Your task to perform on an android device: turn off airplane mode Image 0: 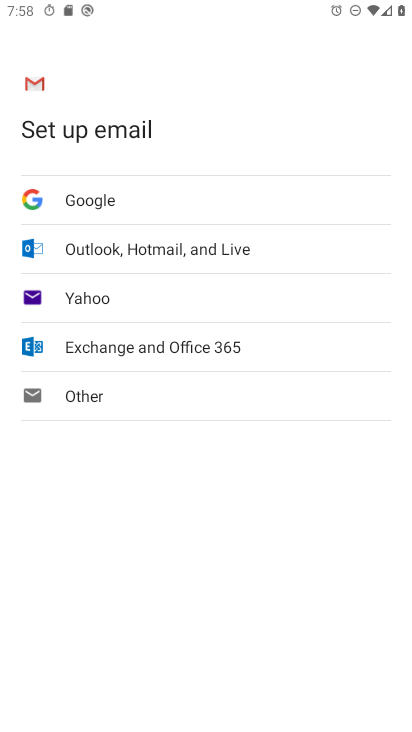
Step 0: press home button
Your task to perform on an android device: turn off airplane mode Image 1: 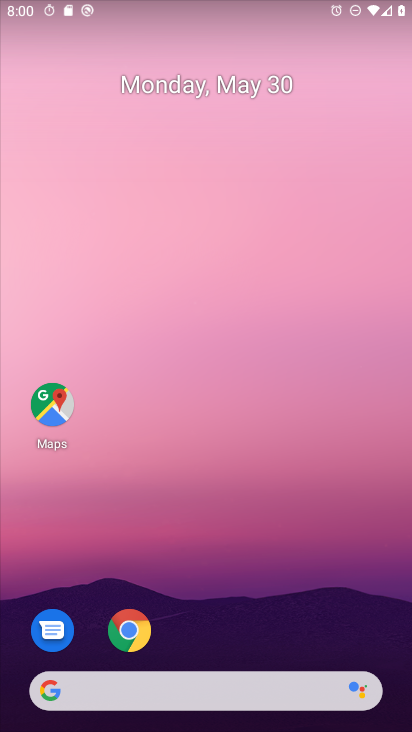
Step 1: task complete